Your task to perform on an android device: Go to privacy settings Image 0: 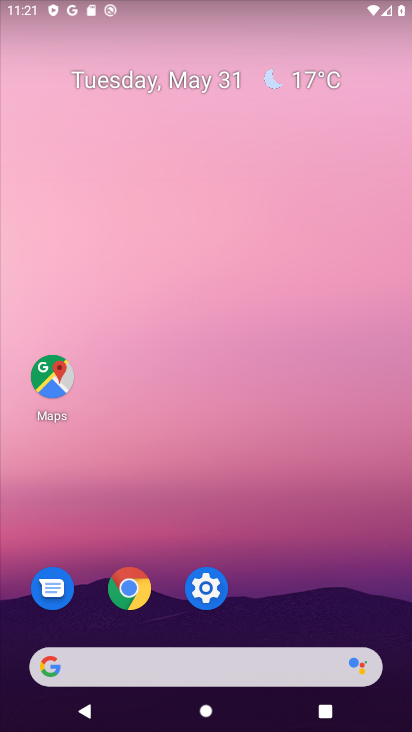
Step 0: press home button
Your task to perform on an android device: Go to privacy settings Image 1: 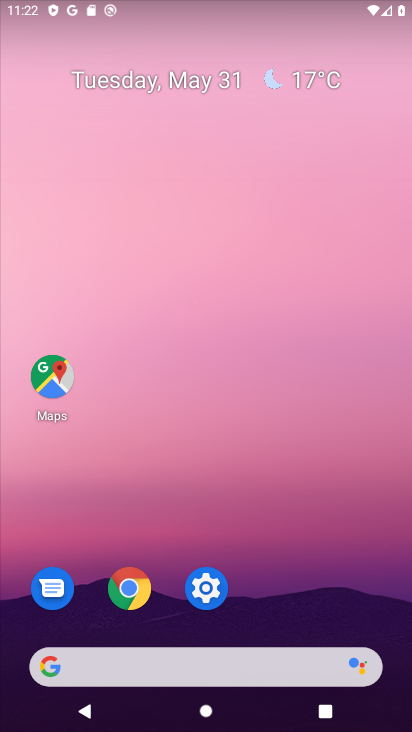
Step 1: click (210, 586)
Your task to perform on an android device: Go to privacy settings Image 2: 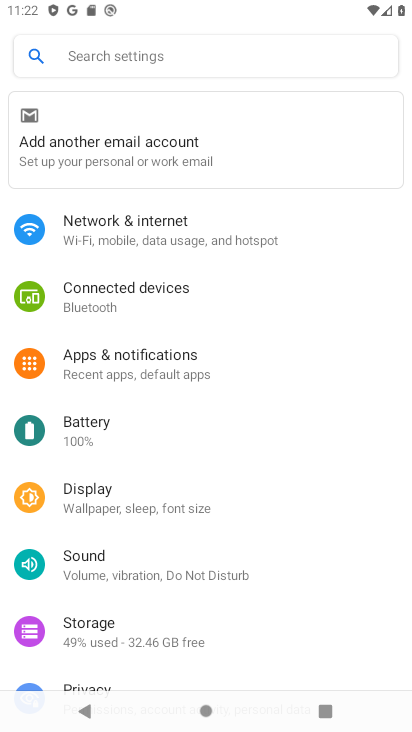
Step 2: click (92, 685)
Your task to perform on an android device: Go to privacy settings Image 3: 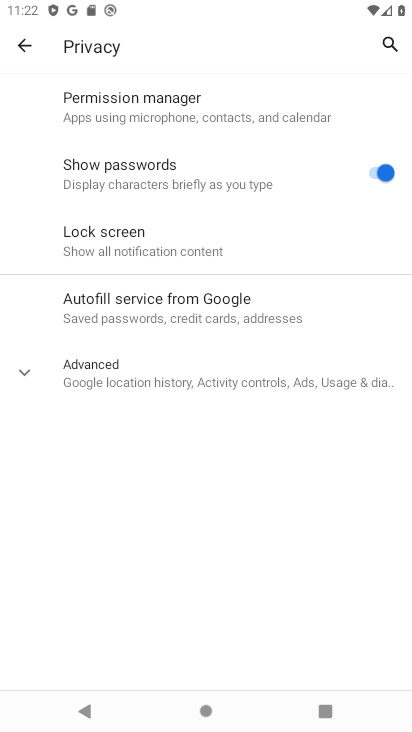
Step 3: task complete